Your task to perform on an android device: Search for vegetarian restaurants on Maps Image 0: 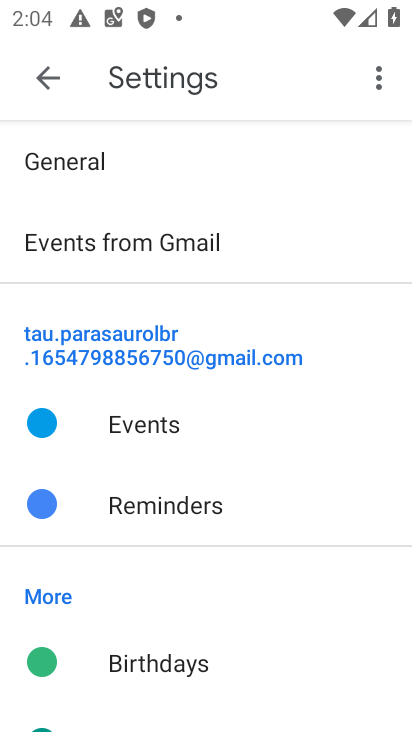
Step 0: press home button
Your task to perform on an android device: Search for vegetarian restaurants on Maps Image 1: 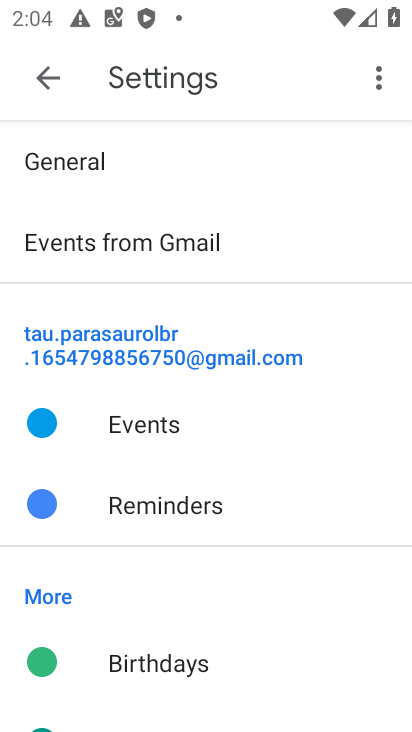
Step 1: press home button
Your task to perform on an android device: Search for vegetarian restaurants on Maps Image 2: 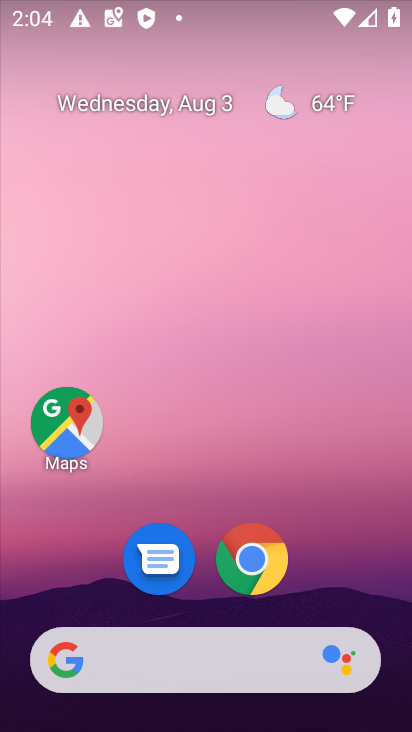
Step 2: drag from (205, 607) to (267, 56)
Your task to perform on an android device: Search for vegetarian restaurants on Maps Image 3: 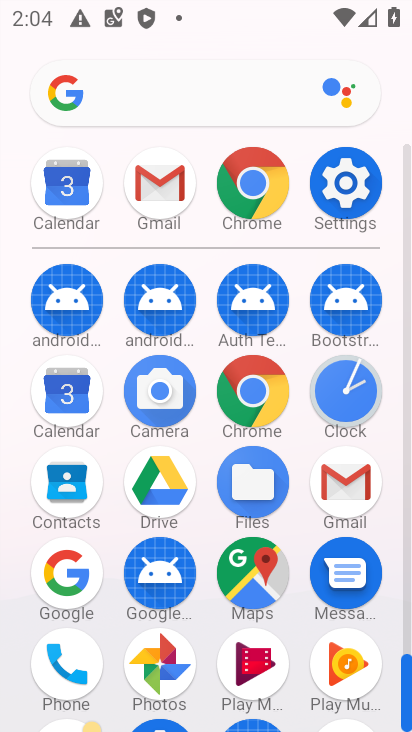
Step 3: click (249, 564)
Your task to perform on an android device: Search for vegetarian restaurants on Maps Image 4: 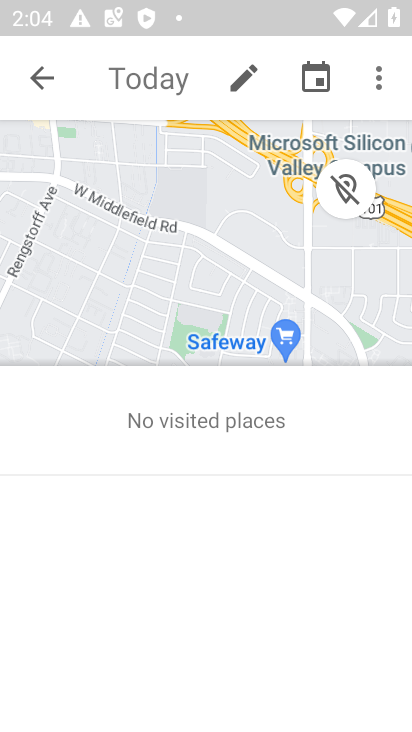
Step 4: click (46, 78)
Your task to perform on an android device: Search for vegetarian restaurants on Maps Image 5: 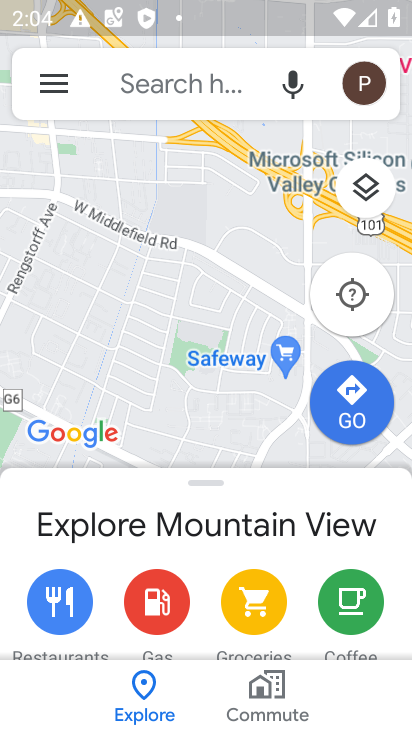
Step 5: click (183, 79)
Your task to perform on an android device: Search for vegetarian restaurants on Maps Image 6: 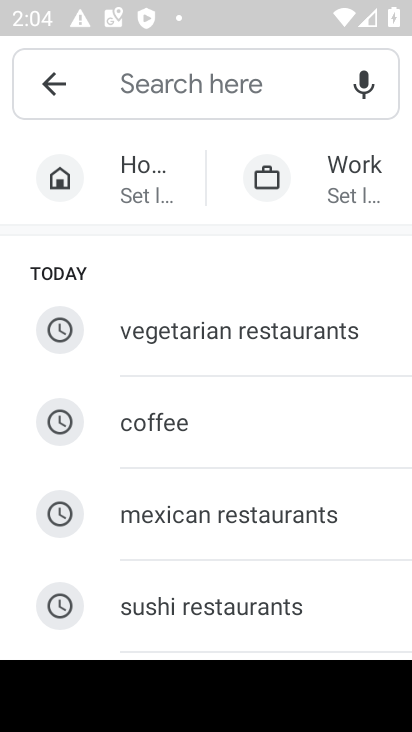
Step 6: click (220, 334)
Your task to perform on an android device: Search for vegetarian restaurants on Maps Image 7: 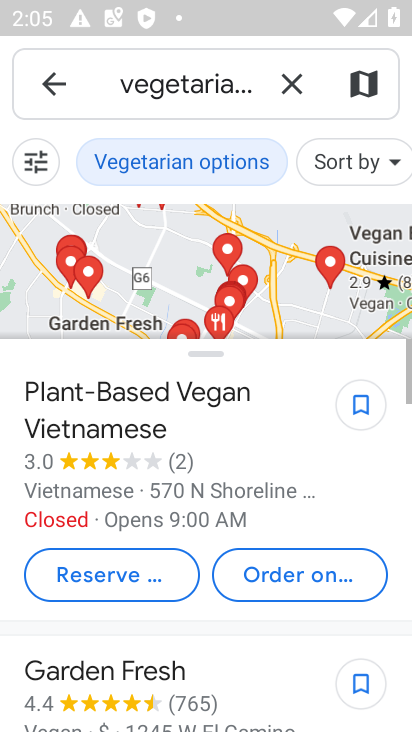
Step 7: task complete